Your task to perform on an android device: change alarm snooze length Image 0: 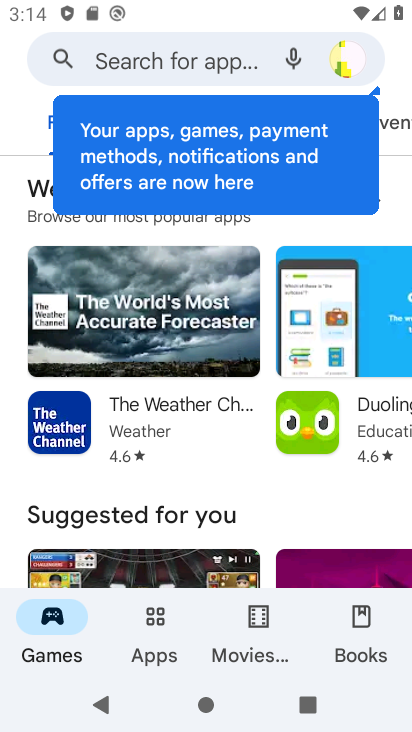
Step 0: press home button
Your task to perform on an android device: change alarm snooze length Image 1: 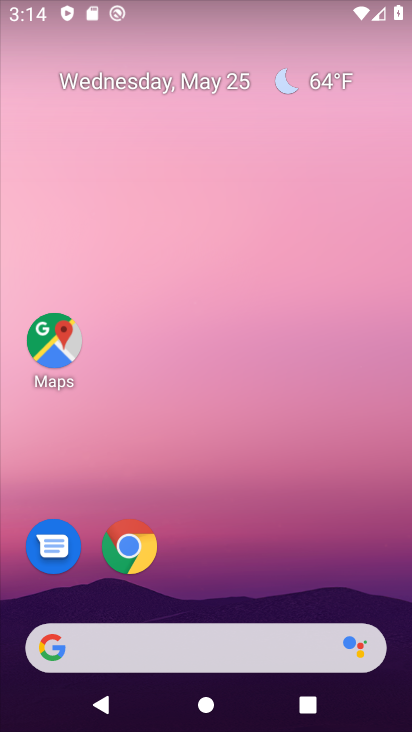
Step 1: drag from (240, 578) to (198, 192)
Your task to perform on an android device: change alarm snooze length Image 2: 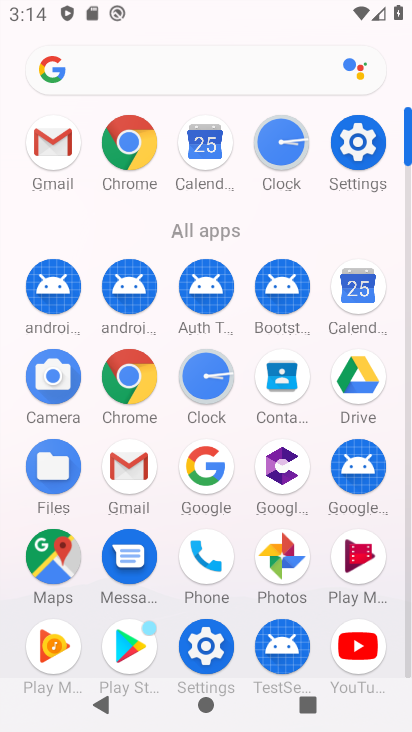
Step 2: click (283, 151)
Your task to perform on an android device: change alarm snooze length Image 3: 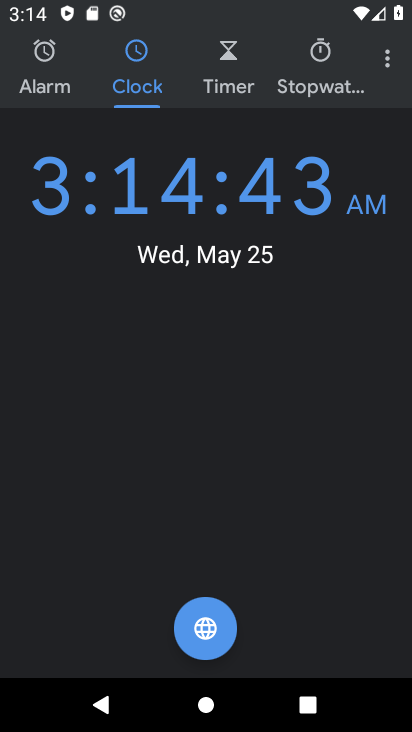
Step 3: click (389, 65)
Your task to perform on an android device: change alarm snooze length Image 4: 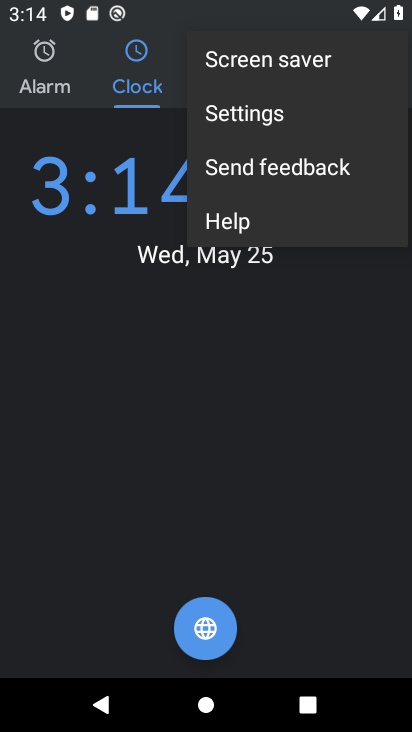
Step 4: click (285, 112)
Your task to perform on an android device: change alarm snooze length Image 5: 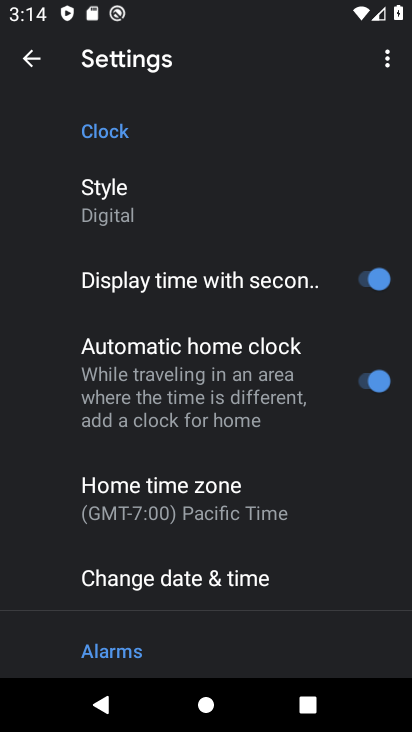
Step 5: drag from (140, 648) to (50, 458)
Your task to perform on an android device: change alarm snooze length Image 6: 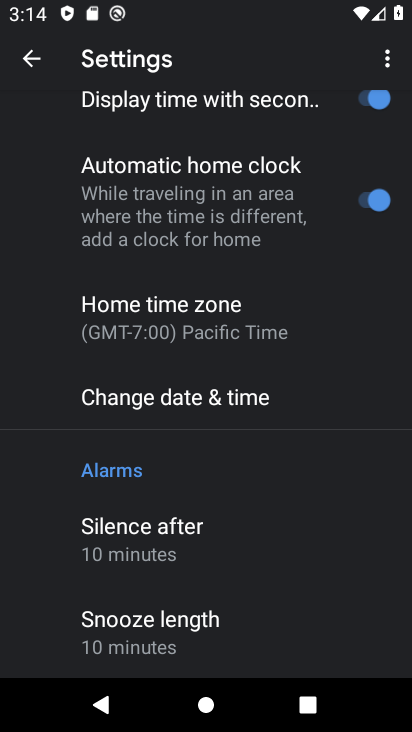
Step 6: click (163, 640)
Your task to perform on an android device: change alarm snooze length Image 7: 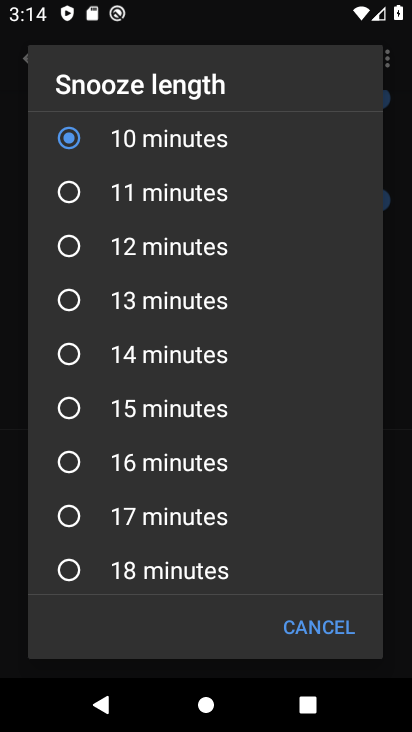
Step 7: click (81, 577)
Your task to perform on an android device: change alarm snooze length Image 8: 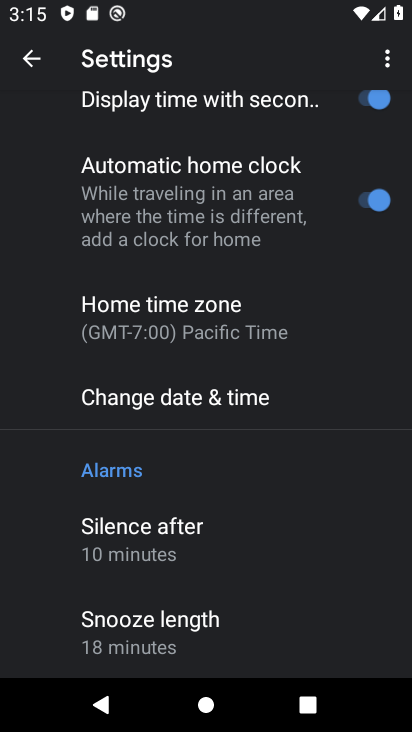
Step 8: task complete